Your task to perform on an android device: set the timer Image 0: 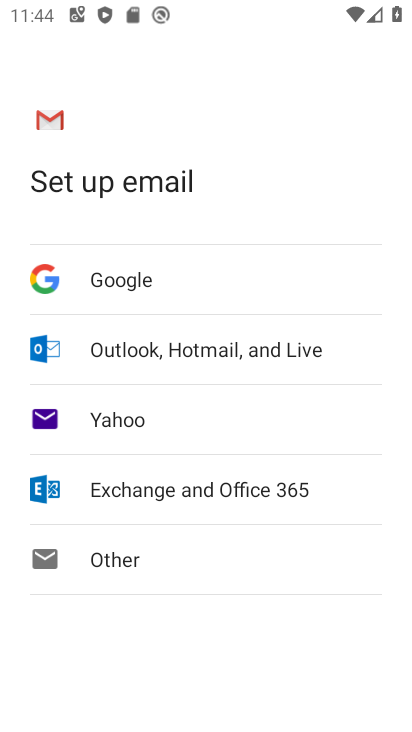
Step 0: press home button
Your task to perform on an android device: set the timer Image 1: 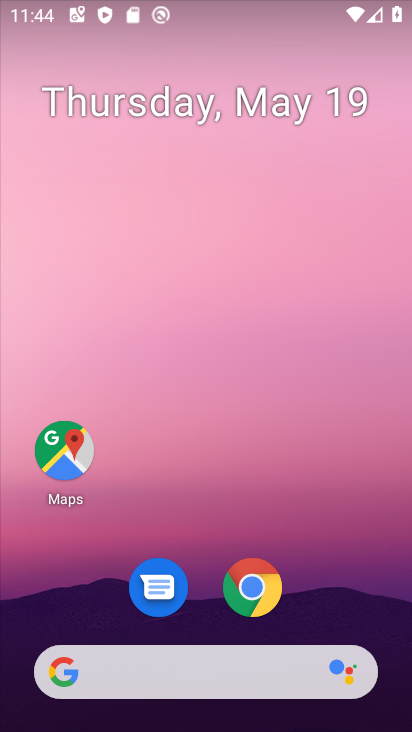
Step 1: drag from (155, 685) to (79, 145)
Your task to perform on an android device: set the timer Image 2: 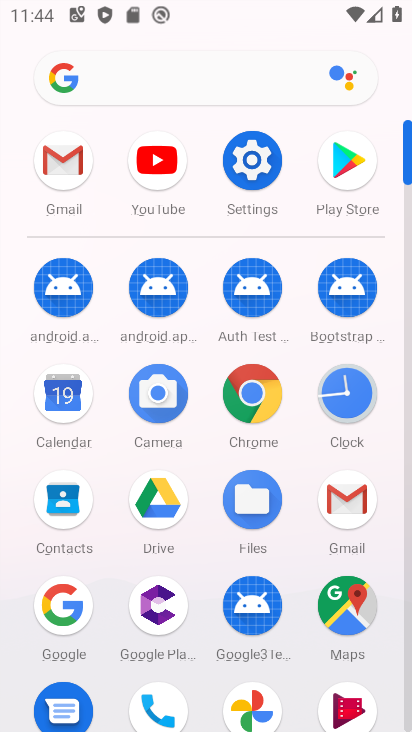
Step 2: click (332, 399)
Your task to perform on an android device: set the timer Image 3: 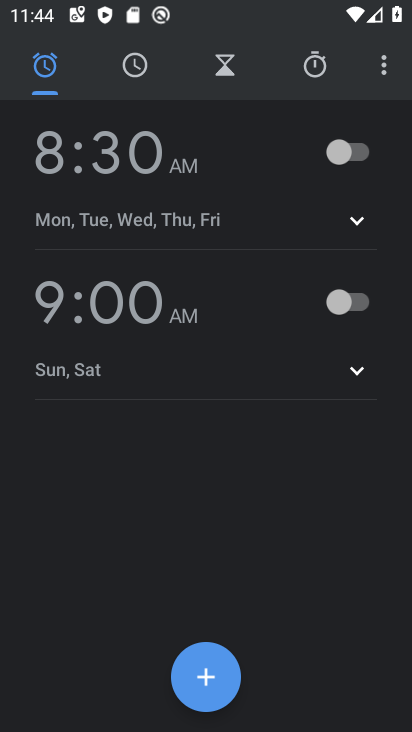
Step 3: click (218, 70)
Your task to perform on an android device: set the timer Image 4: 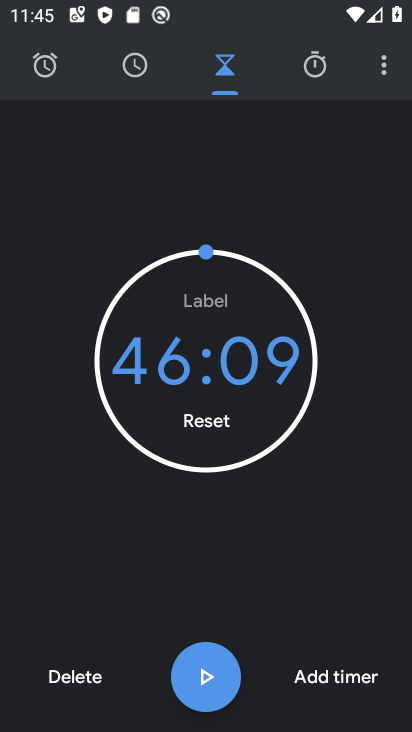
Step 4: click (90, 683)
Your task to perform on an android device: set the timer Image 5: 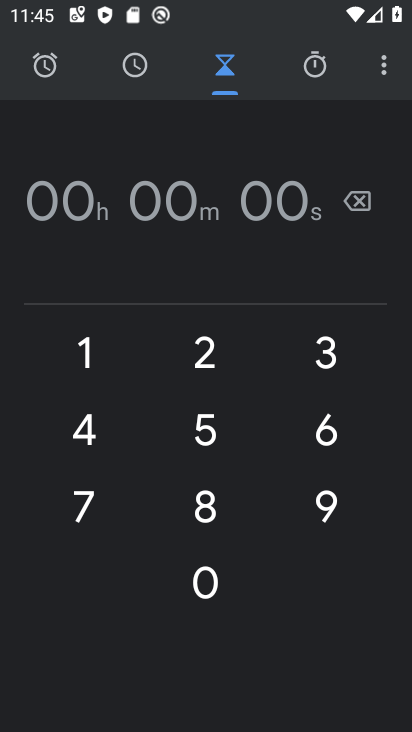
Step 5: click (199, 341)
Your task to perform on an android device: set the timer Image 6: 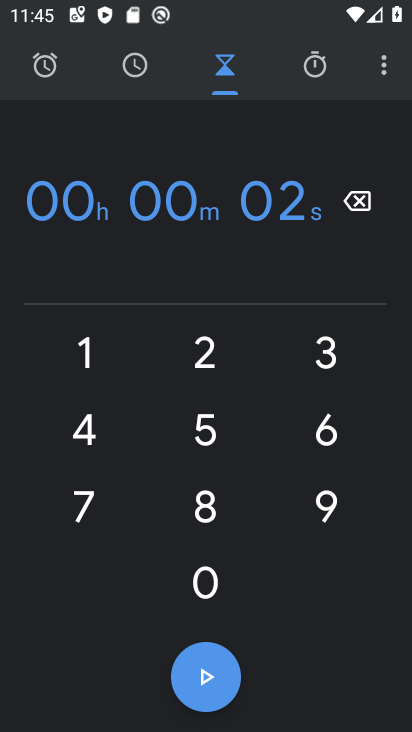
Step 6: click (201, 401)
Your task to perform on an android device: set the timer Image 7: 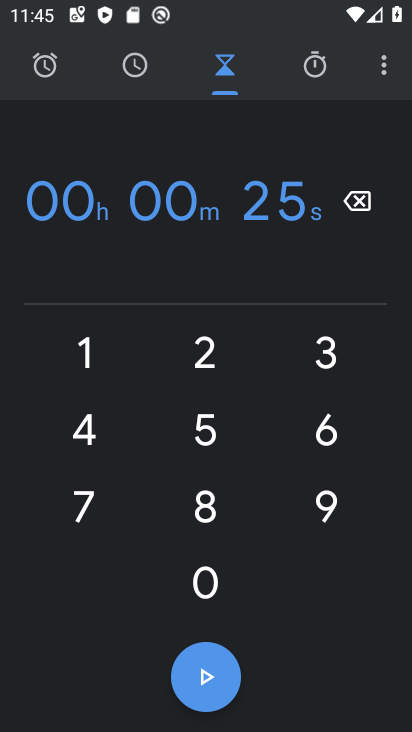
Step 7: click (223, 494)
Your task to perform on an android device: set the timer Image 8: 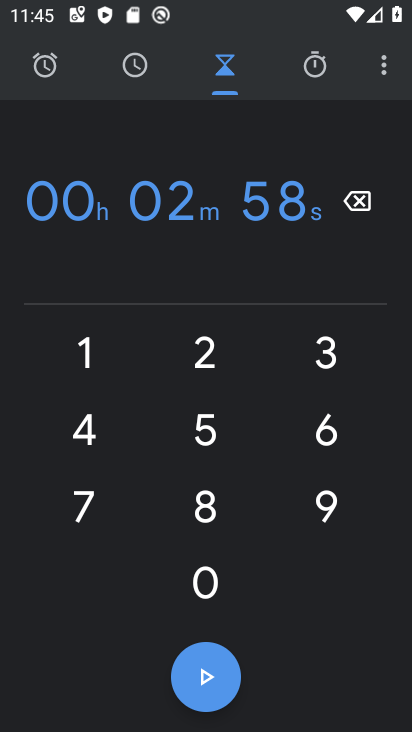
Step 8: click (208, 675)
Your task to perform on an android device: set the timer Image 9: 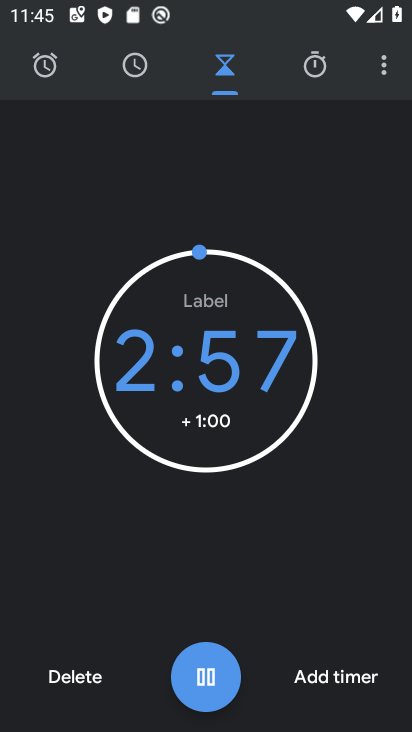
Step 9: task complete